Your task to perform on an android device: manage bookmarks in the chrome app Image 0: 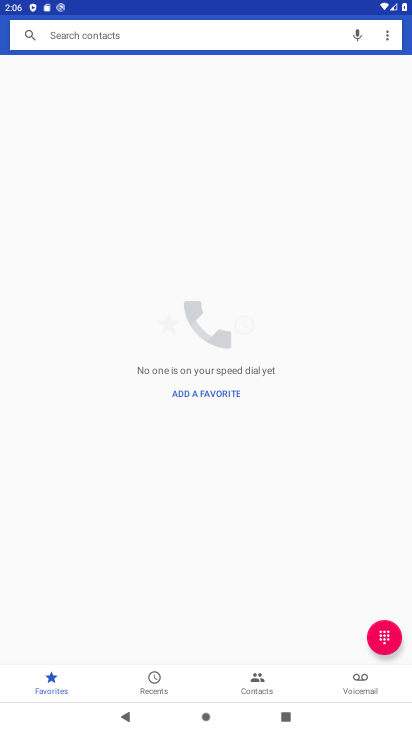
Step 0: press home button
Your task to perform on an android device: manage bookmarks in the chrome app Image 1: 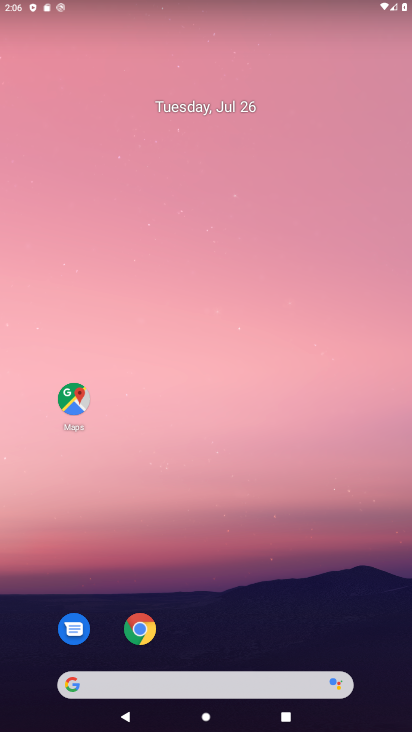
Step 1: click (137, 633)
Your task to perform on an android device: manage bookmarks in the chrome app Image 2: 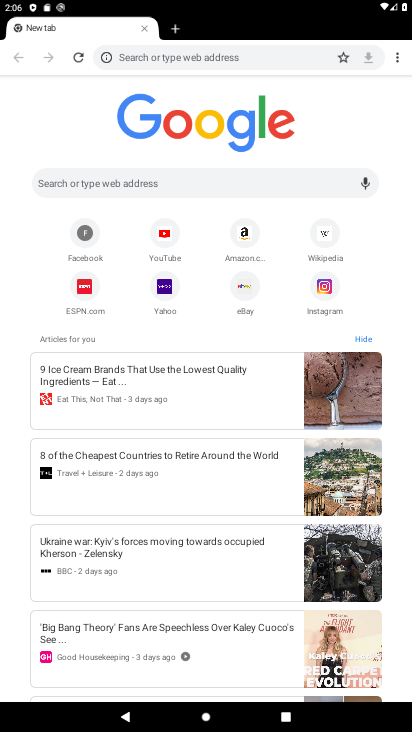
Step 2: click (397, 52)
Your task to perform on an android device: manage bookmarks in the chrome app Image 3: 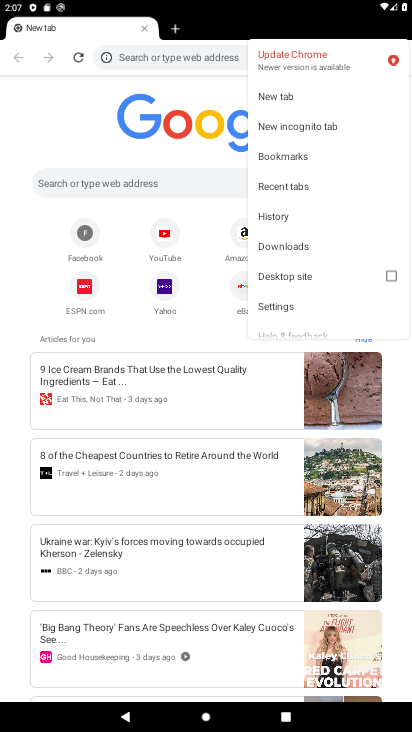
Step 3: click (321, 156)
Your task to perform on an android device: manage bookmarks in the chrome app Image 4: 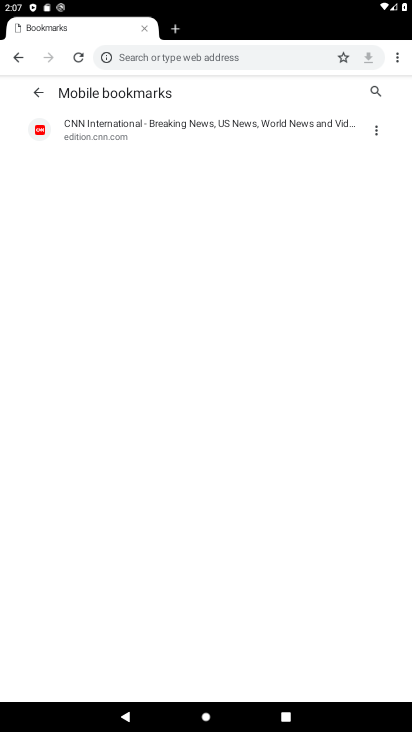
Step 4: click (375, 126)
Your task to perform on an android device: manage bookmarks in the chrome app Image 5: 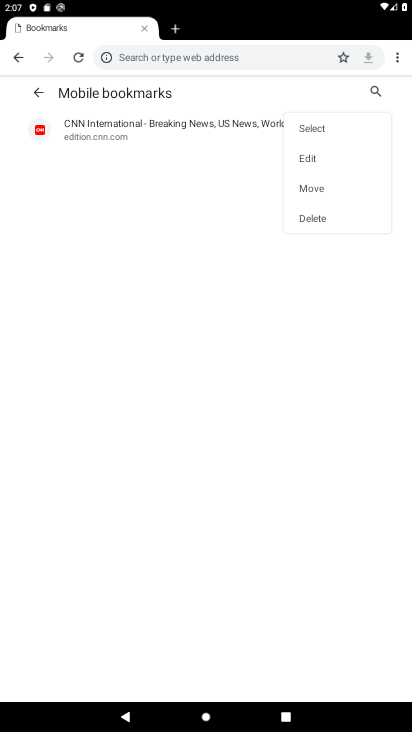
Step 5: click (366, 218)
Your task to perform on an android device: manage bookmarks in the chrome app Image 6: 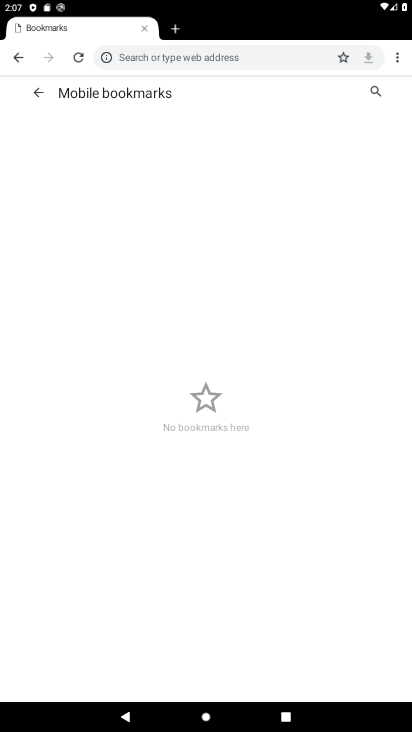
Step 6: task complete